Your task to perform on an android device: turn off airplane mode Image 0: 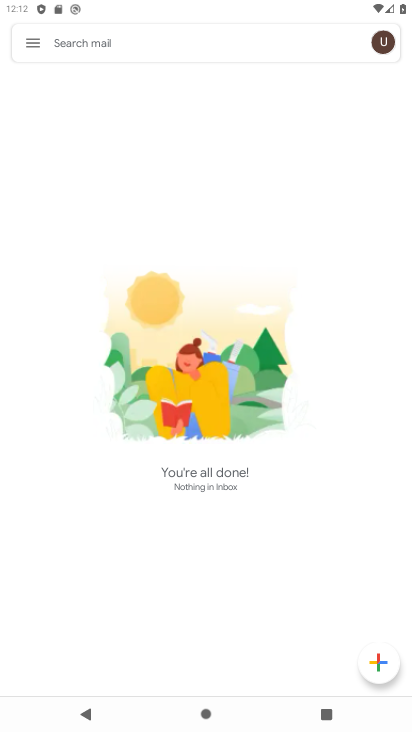
Step 0: drag from (162, 3) to (202, 688)
Your task to perform on an android device: turn off airplane mode Image 1: 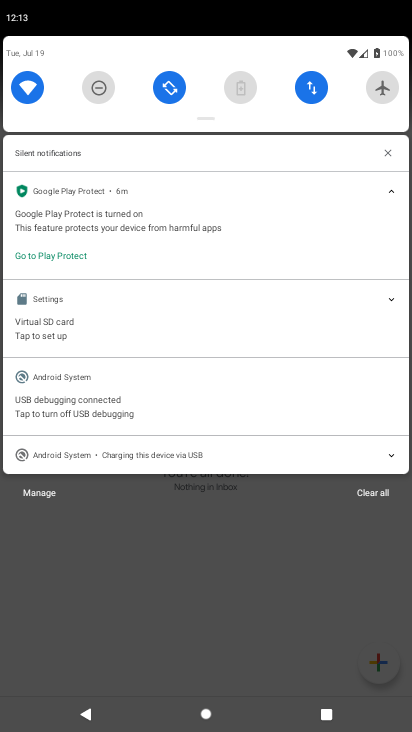
Step 1: task complete